Your task to perform on an android device: delete location history Image 0: 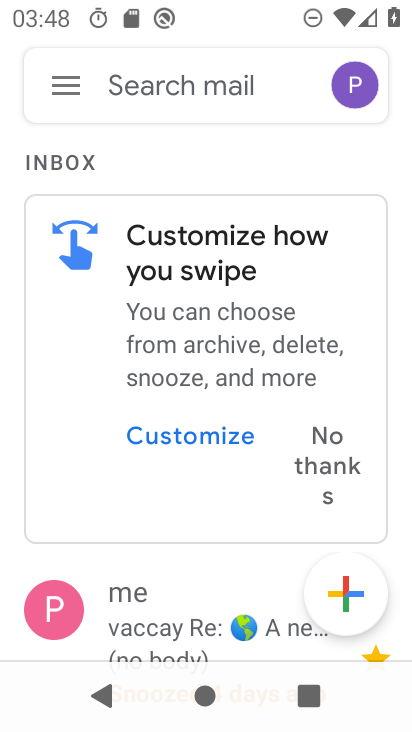
Step 0: press back button
Your task to perform on an android device: delete location history Image 1: 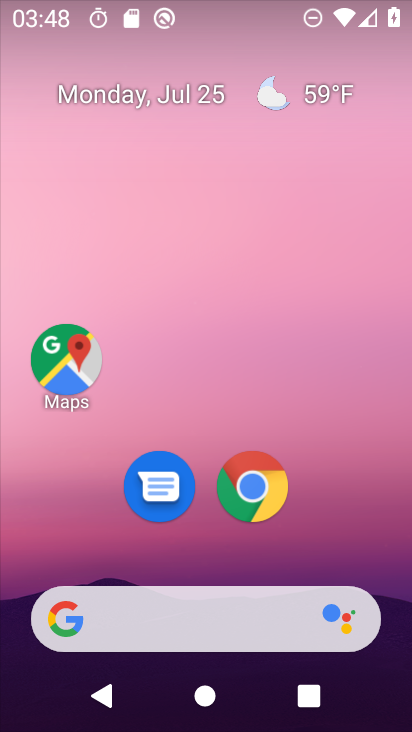
Step 1: click (69, 346)
Your task to perform on an android device: delete location history Image 2: 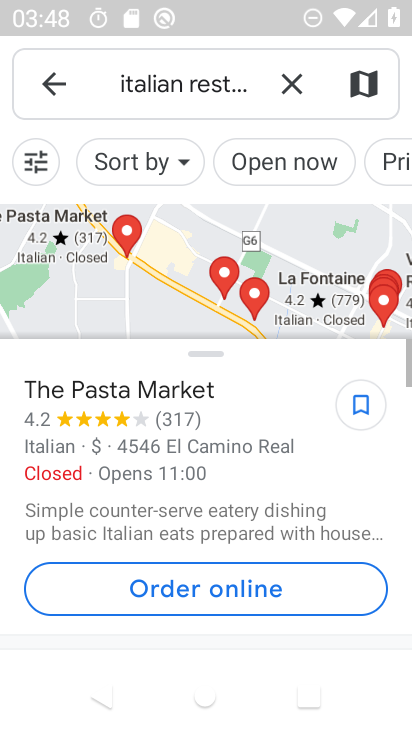
Step 2: click (45, 79)
Your task to perform on an android device: delete location history Image 3: 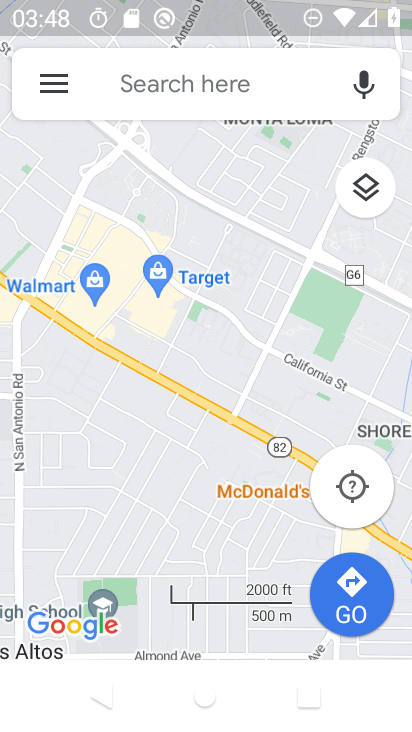
Step 3: click (57, 74)
Your task to perform on an android device: delete location history Image 4: 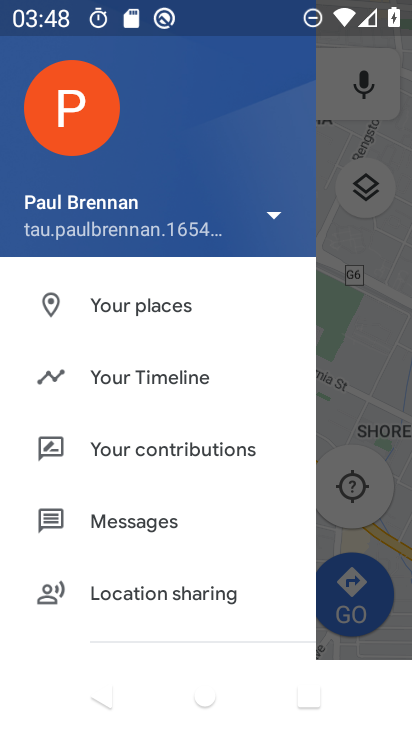
Step 4: click (131, 366)
Your task to perform on an android device: delete location history Image 5: 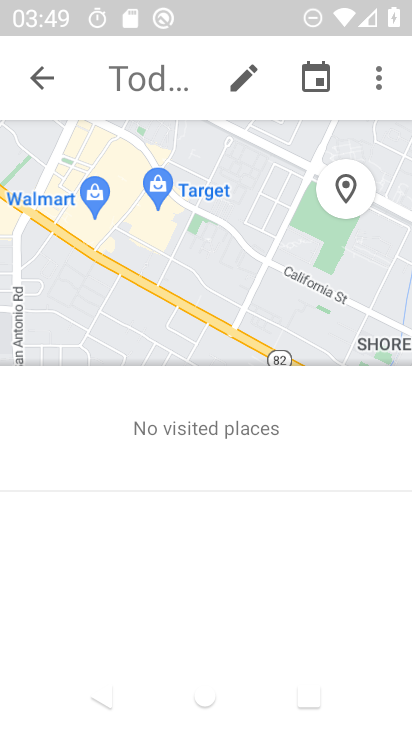
Step 5: click (378, 69)
Your task to perform on an android device: delete location history Image 6: 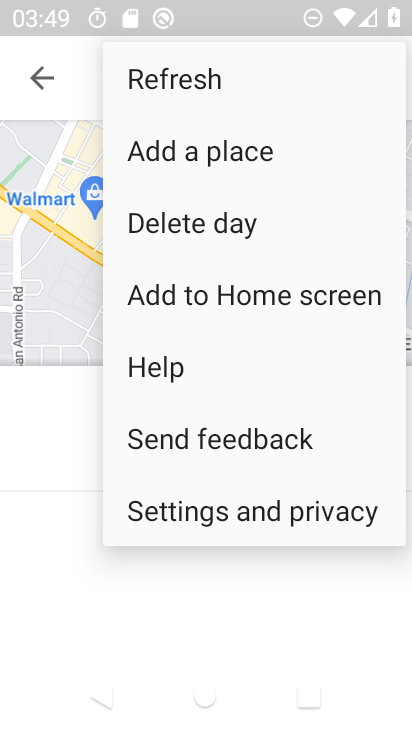
Step 6: click (202, 523)
Your task to perform on an android device: delete location history Image 7: 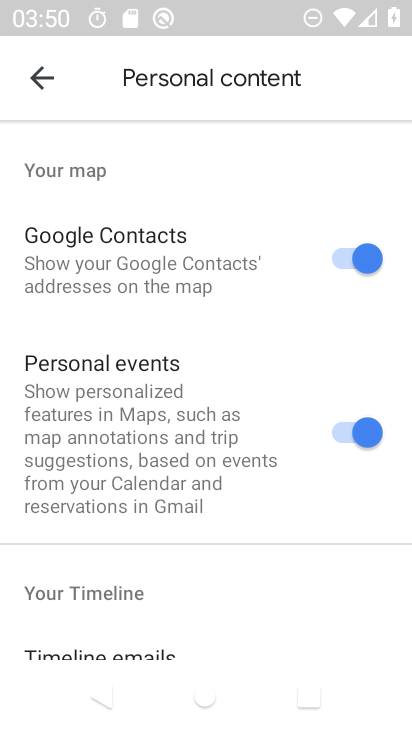
Step 7: drag from (175, 199) to (133, 681)
Your task to perform on an android device: delete location history Image 8: 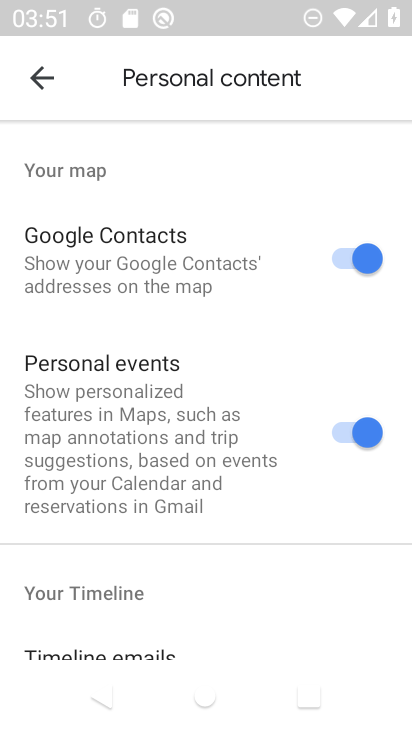
Step 8: drag from (132, 518) to (232, 34)
Your task to perform on an android device: delete location history Image 9: 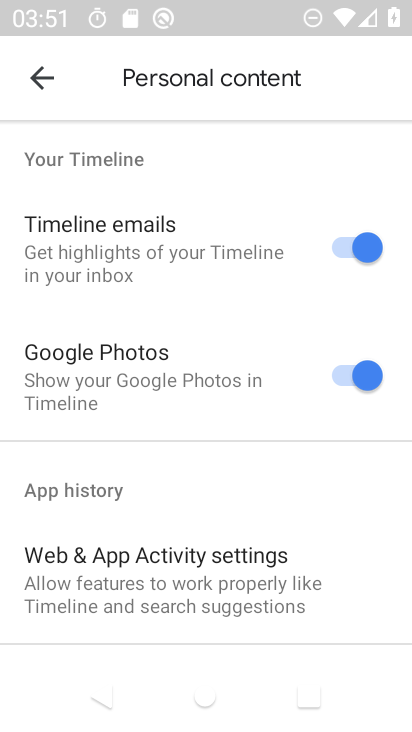
Step 9: click (30, 60)
Your task to perform on an android device: delete location history Image 10: 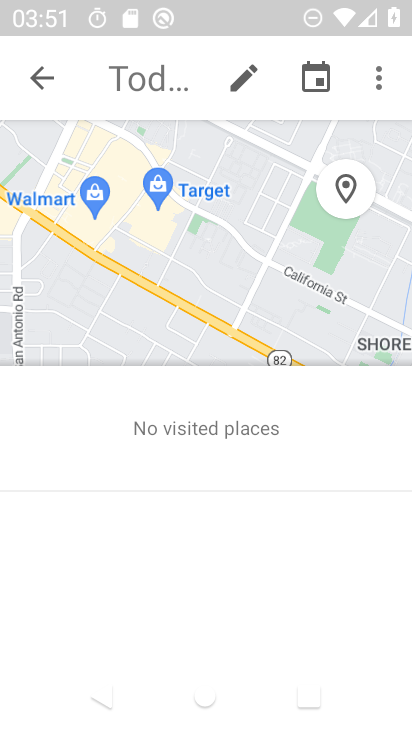
Step 10: click (368, 65)
Your task to perform on an android device: delete location history Image 11: 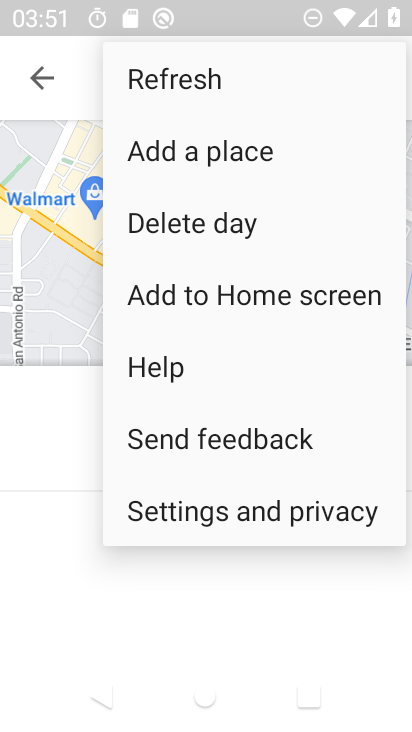
Step 11: click (169, 512)
Your task to perform on an android device: delete location history Image 12: 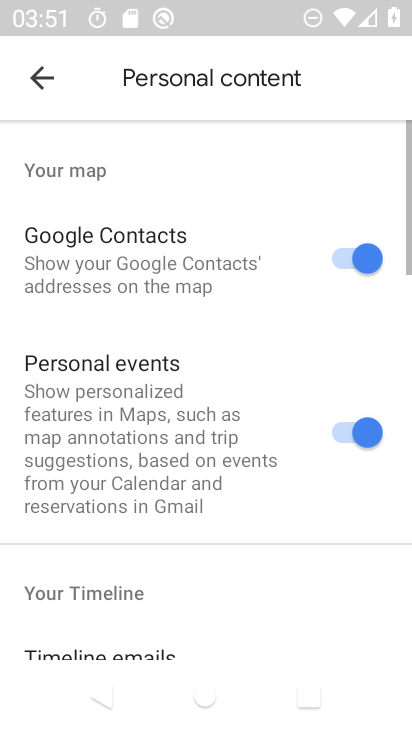
Step 12: drag from (163, 518) to (284, 7)
Your task to perform on an android device: delete location history Image 13: 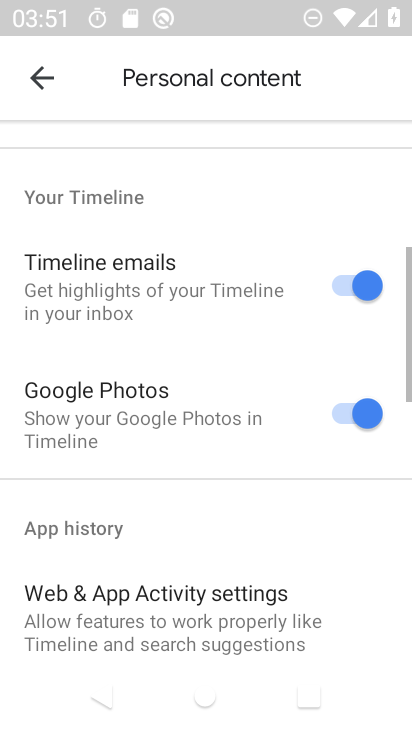
Step 13: drag from (174, 581) to (277, 13)
Your task to perform on an android device: delete location history Image 14: 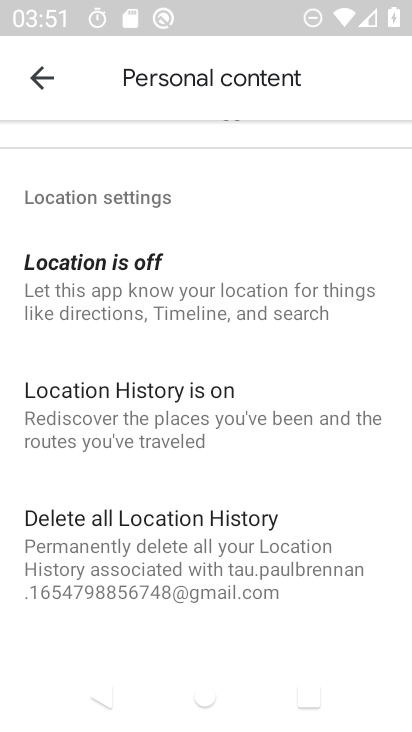
Step 14: click (155, 540)
Your task to perform on an android device: delete location history Image 15: 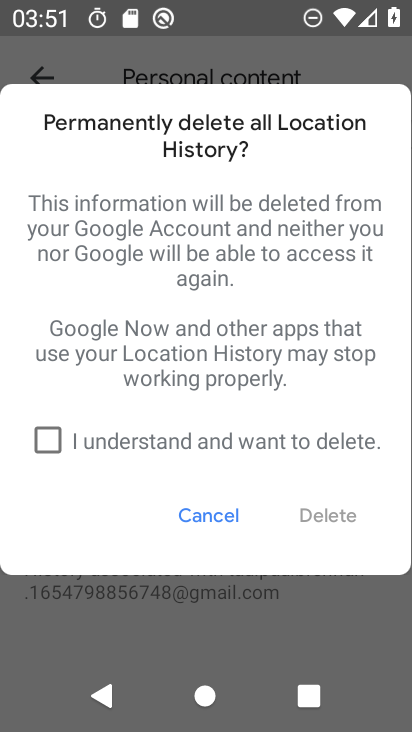
Step 15: click (58, 435)
Your task to perform on an android device: delete location history Image 16: 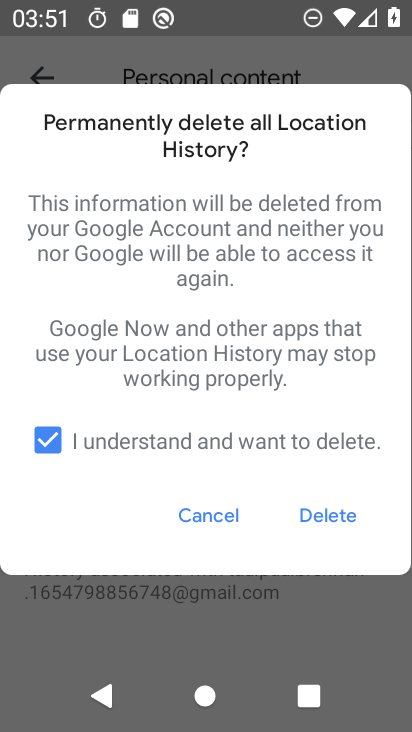
Step 16: click (335, 514)
Your task to perform on an android device: delete location history Image 17: 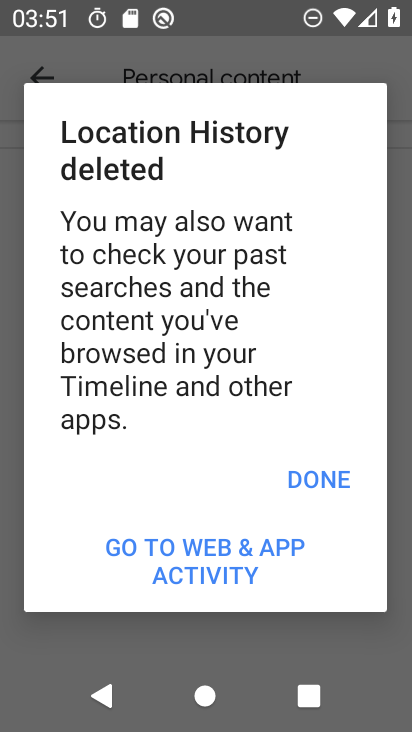
Step 17: click (324, 477)
Your task to perform on an android device: delete location history Image 18: 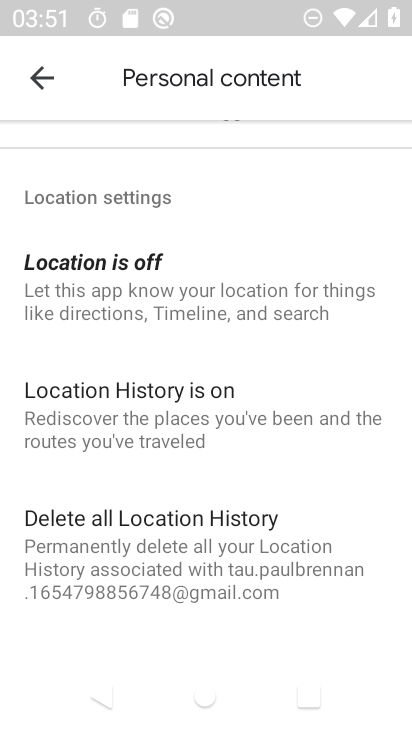
Step 18: task complete